Your task to perform on an android device: Go to network settings Image 0: 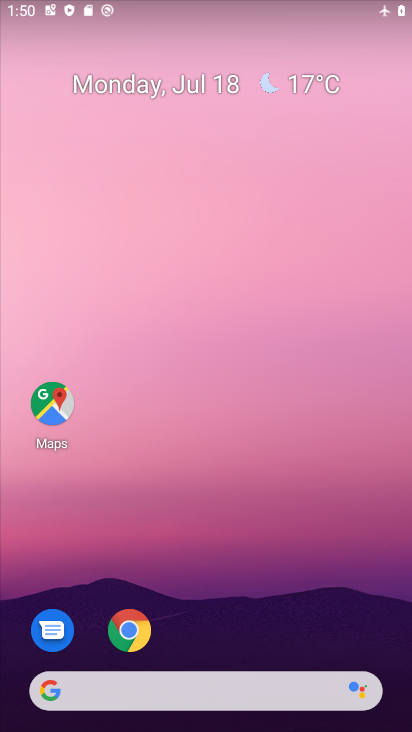
Step 0: drag from (283, 510) to (304, 18)
Your task to perform on an android device: Go to network settings Image 1: 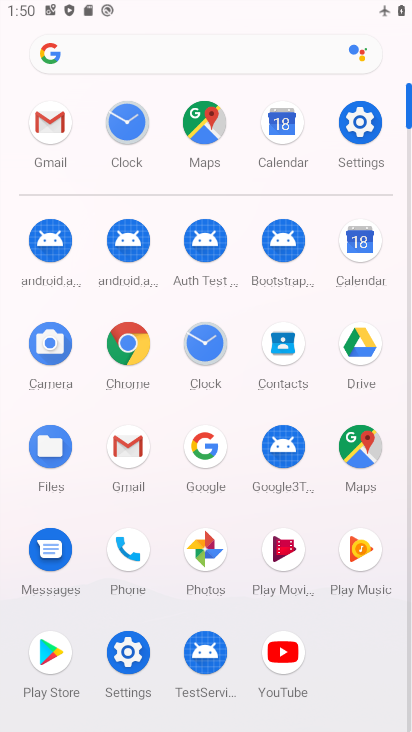
Step 1: click (354, 123)
Your task to perform on an android device: Go to network settings Image 2: 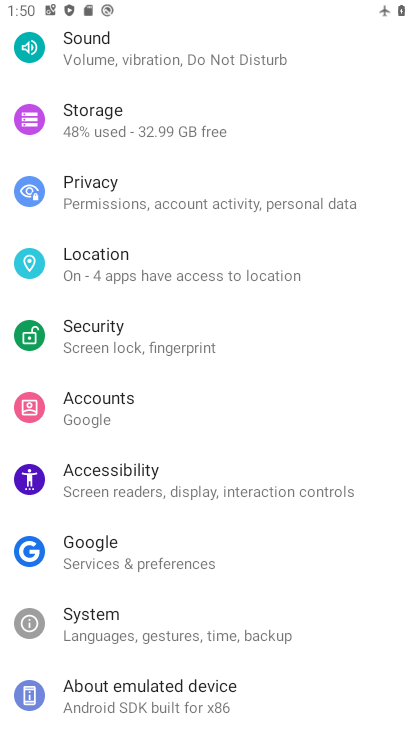
Step 2: drag from (199, 163) to (313, 618)
Your task to perform on an android device: Go to network settings Image 3: 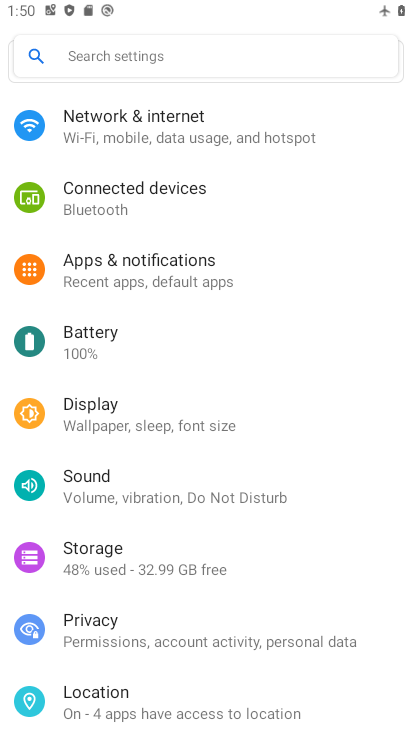
Step 3: click (223, 127)
Your task to perform on an android device: Go to network settings Image 4: 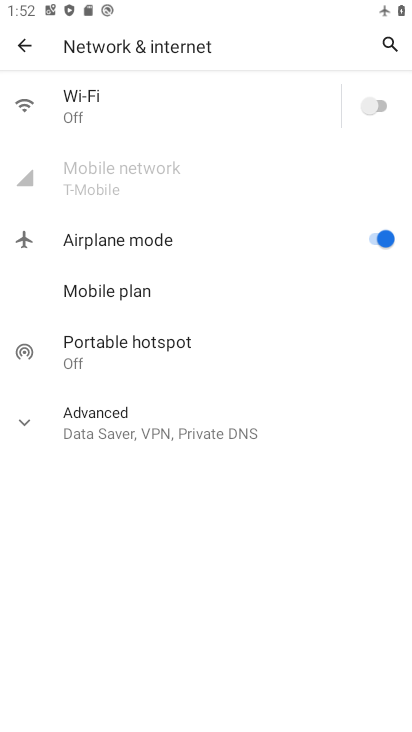
Step 4: task complete